Your task to perform on an android device: choose inbox layout in the gmail app Image 0: 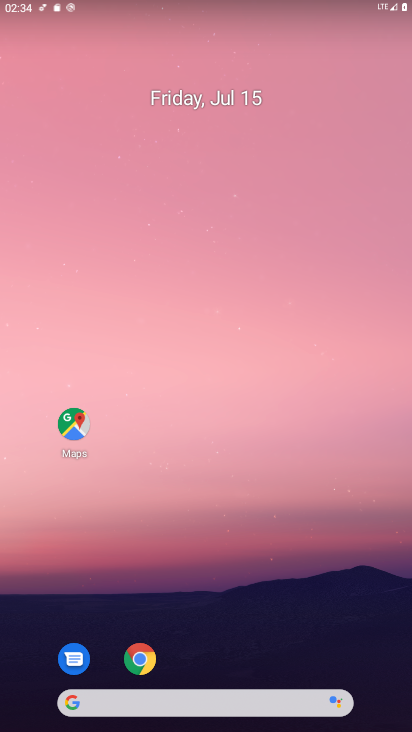
Step 0: drag from (290, 658) to (285, 154)
Your task to perform on an android device: choose inbox layout in the gmail app Image 1: 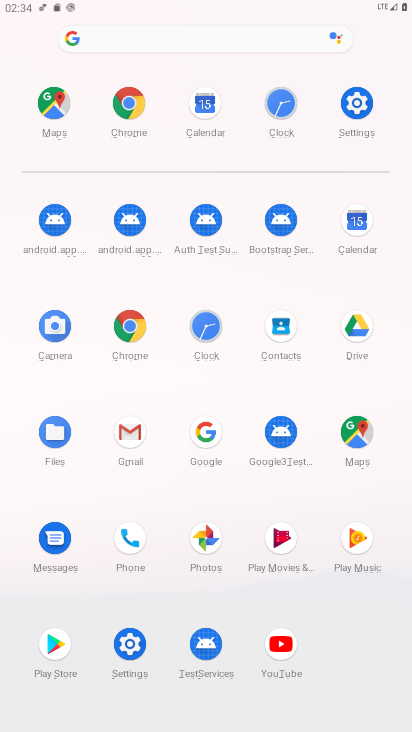
Step 1: click (130, 423)
Your task to perform on an android device: choose inbox layout in the gmail app Image 2: 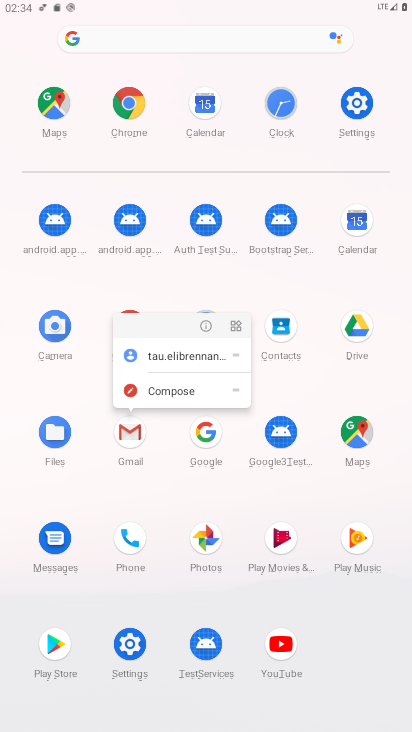
Step 2: click (130, 423)
Your task to perform on an android device: choose inbox layout in the gmail app Image 3: 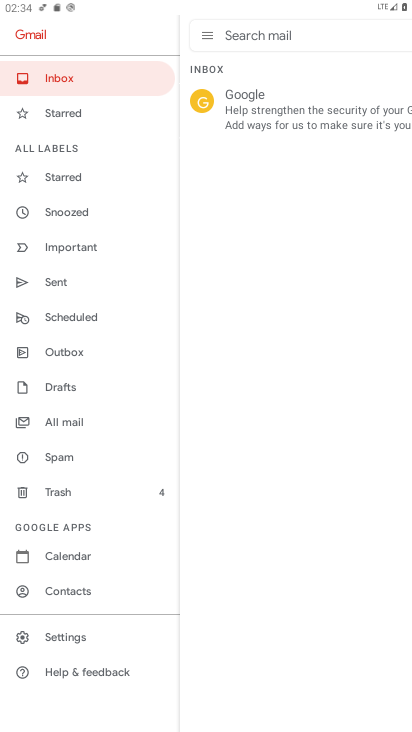
Step 3: click (56, 632)
Your task to perform on an android device: choose inbox layout in the gmail app Image 4: 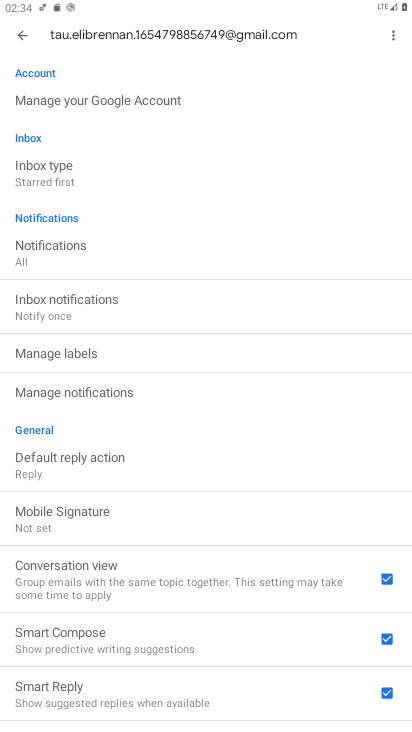
Step 4: click (61, 181)
Your task to perform on an android device: choose inbox layout in the gmail app Image 5: 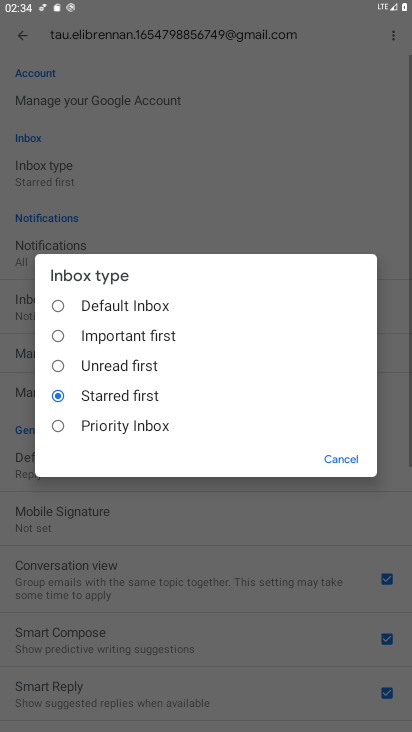
Step 5: click (77, 369)
Your task to perform on an android device: choose inbox layout in the gmail app Image 6: 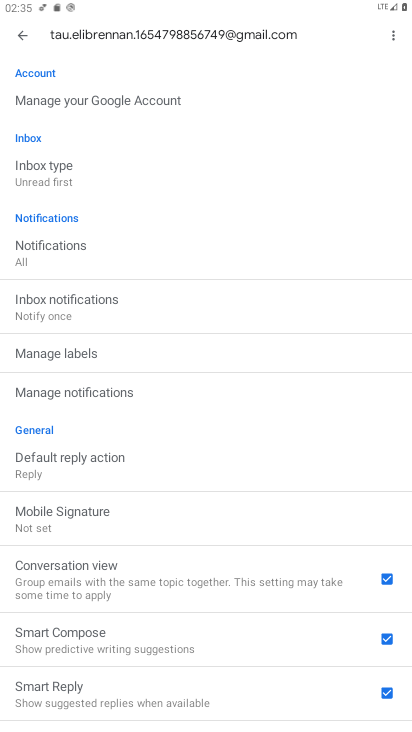
Step 6: task complete